Your task to perform on an android device: turn off location Image 0: 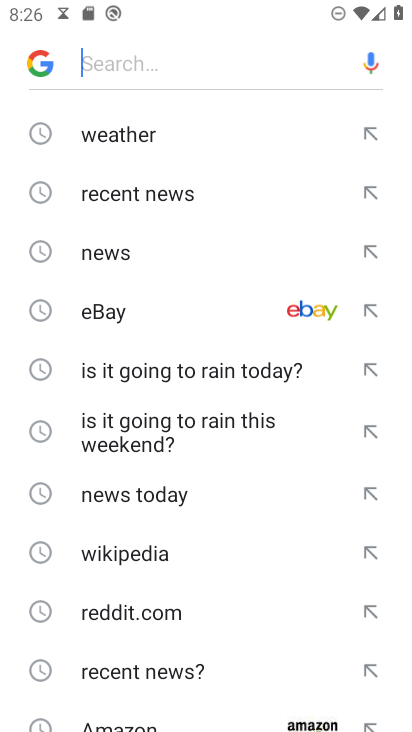
Step 0: press home button
Your task to perform on an android device: turn off location Image 1: 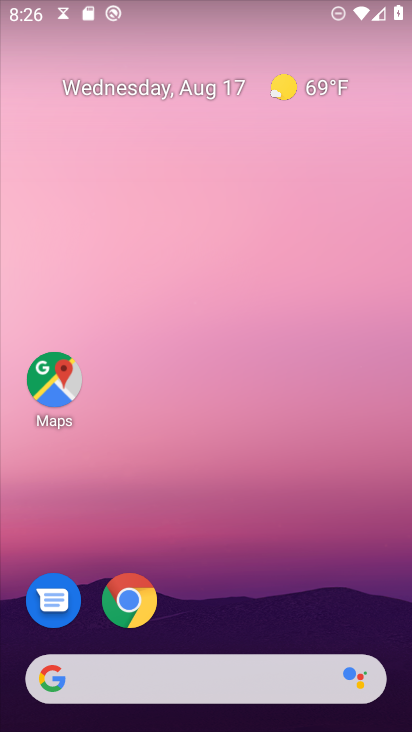
Step 1: drag from (298, 588) to (228, 101)
Your task to perform on an android device: turn off location Image 2: 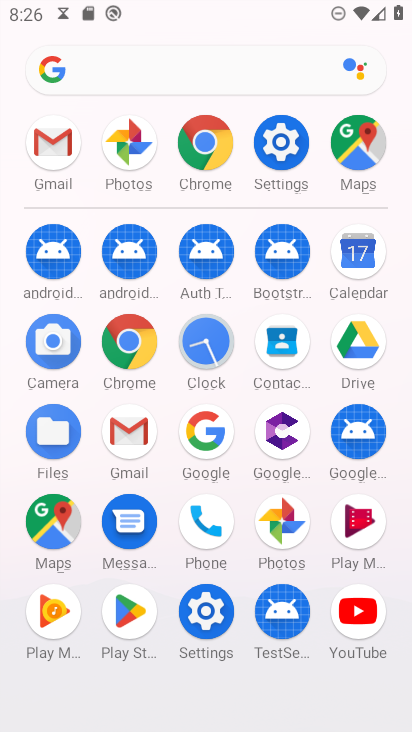
Step 2: click (199, 606)
Your task to perform on an android device: turn off location Image 3: 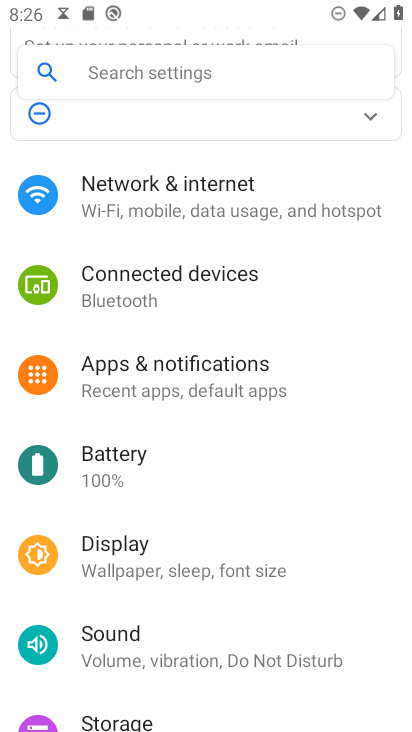
Step 3: drag from (132, 602) to (149, 248)
Your task to perform on an android device: turn off location Image 4: 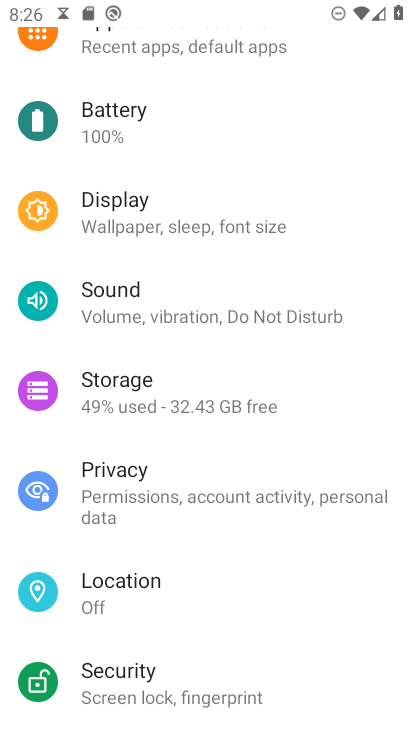
Step 4: click (126, 590)
Your task to perform on an android device: turn off location Image 5: 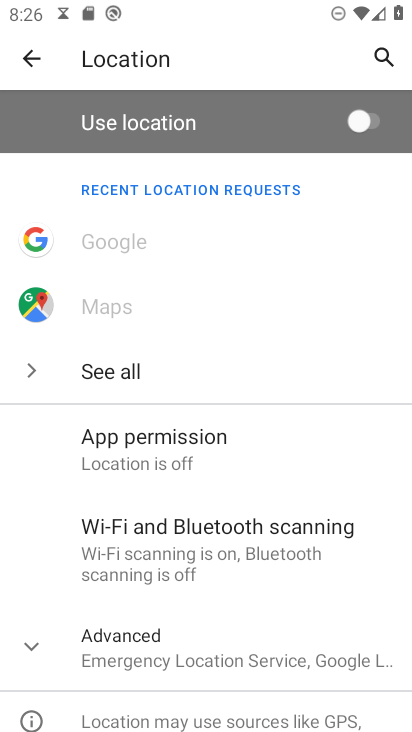
Step 5: task complete